Your task to perform on an android device: Go to settings Image 0: 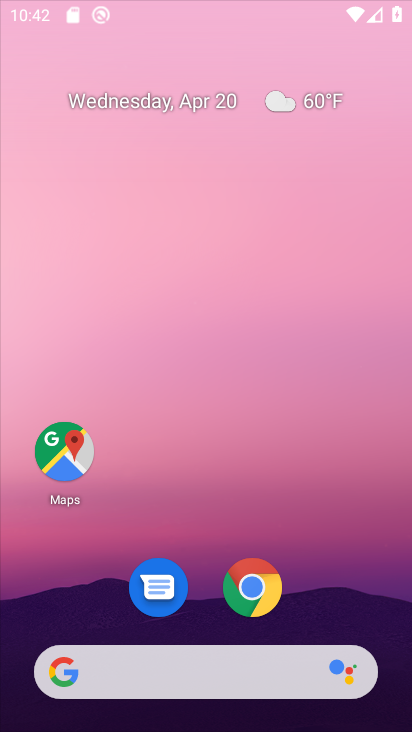
Step 0: drag from (209, 622) to (270, 28)
Your task to perform on an android device: Go to settings Image 1: 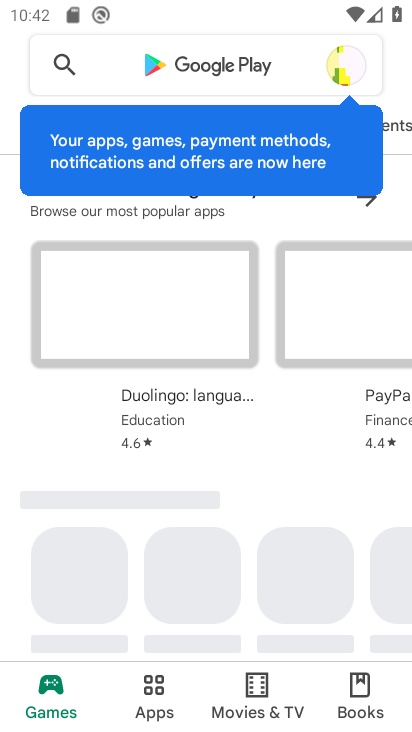
Step 1: press home button
Your task to perform on an android device: Go to settings Image 2: 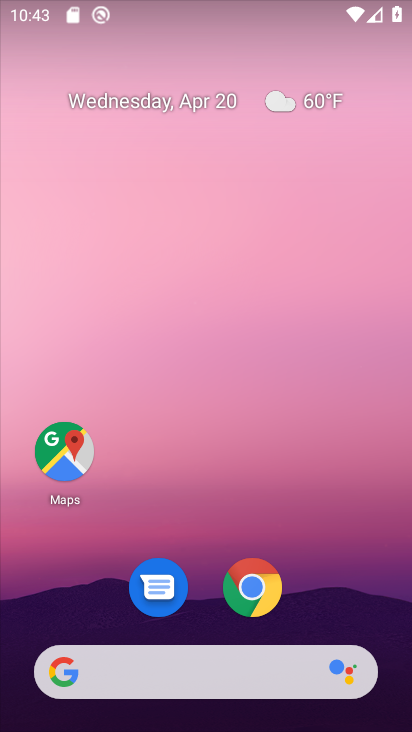
Step 2: drag from (207, 613) to (244, 15)
Your task to perform on an android device: Go to settings Image 3: 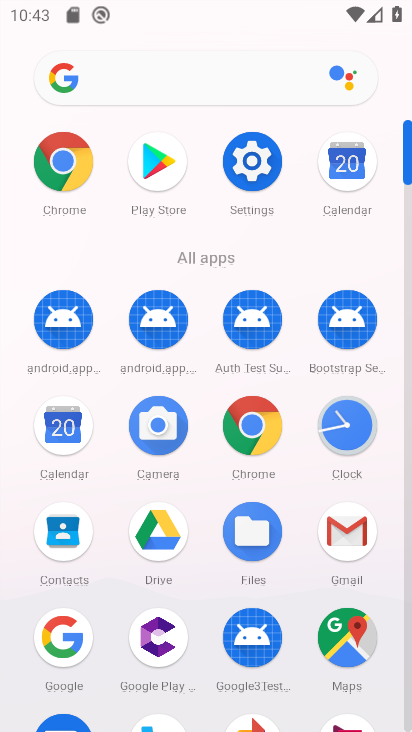
Step 3: click (249, 153)
Your task to perform on an android device: Go to settings Image 4: 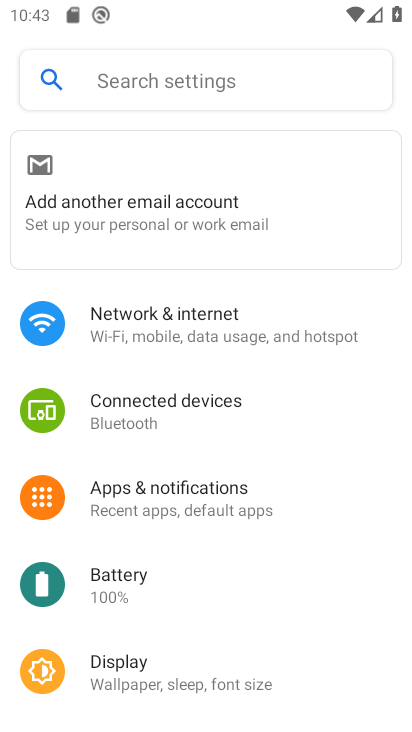
Step 4: task complete